Your task to perform on an android device: Go to wifi settings Image 0: 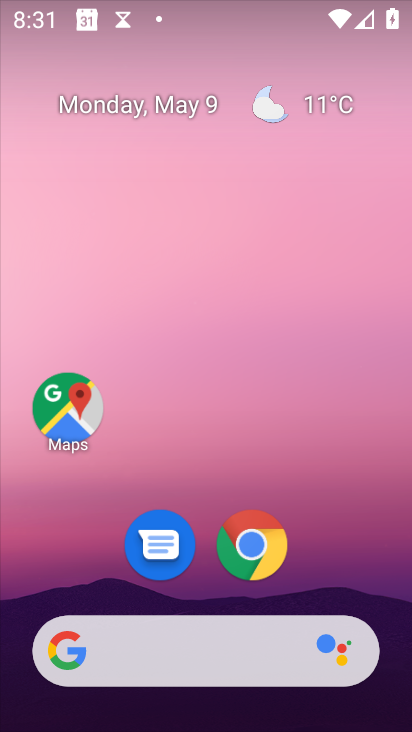
Step 0: drag from (204, 723) to (197, 109)
Your task to perform on an android device: Go to wifi settings Image 1: 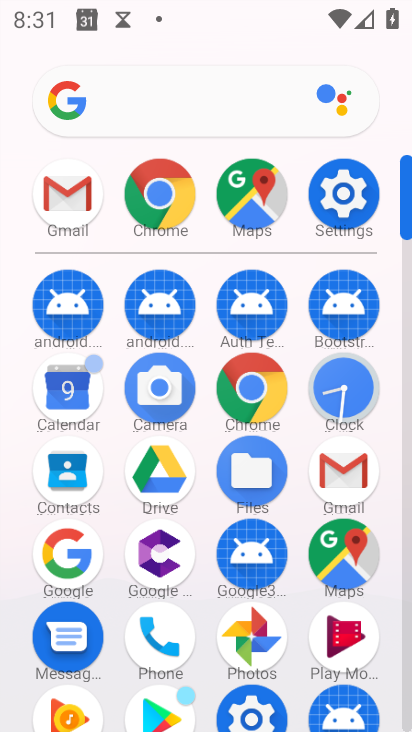
Step 1: click (342, 189)
Your task to perform on an android device: Go to wifi settings Image 2: 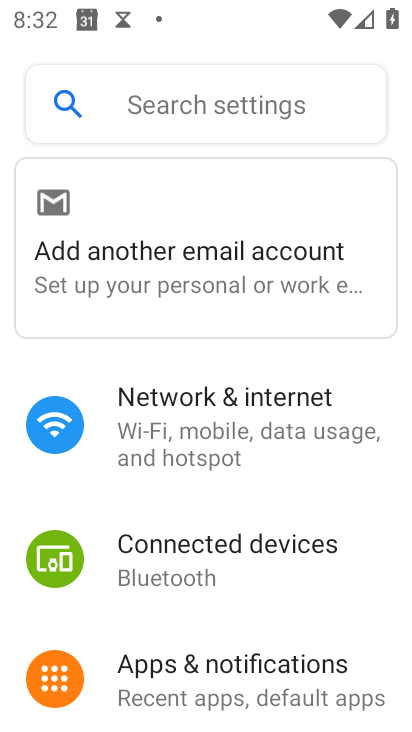
Step 2: click (186, 423)
Your task to perform on an android device: Go to wifi settings Image 3: 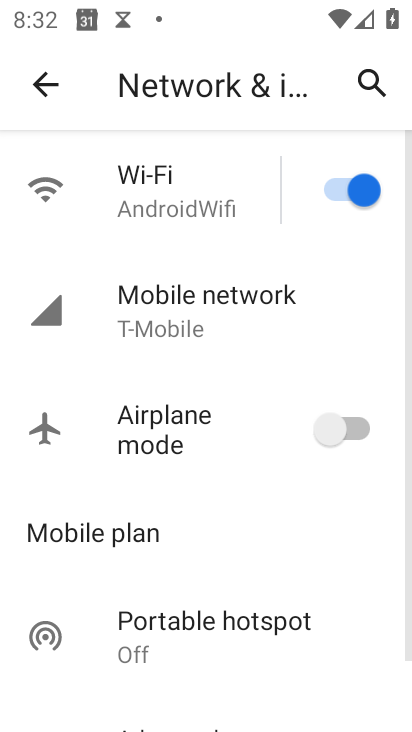
Step 3: click (153, 199)
Your task to perform on an android device: Go to wifi settings Image 4: 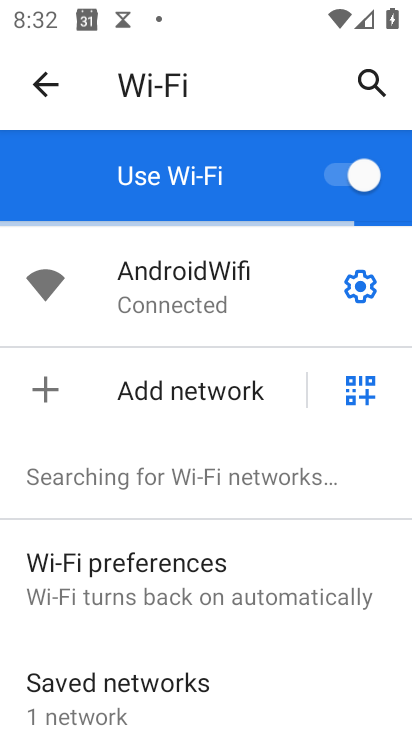
Step 4: task complete